Your task to perform on an android device: Go to battery settings Image 0: 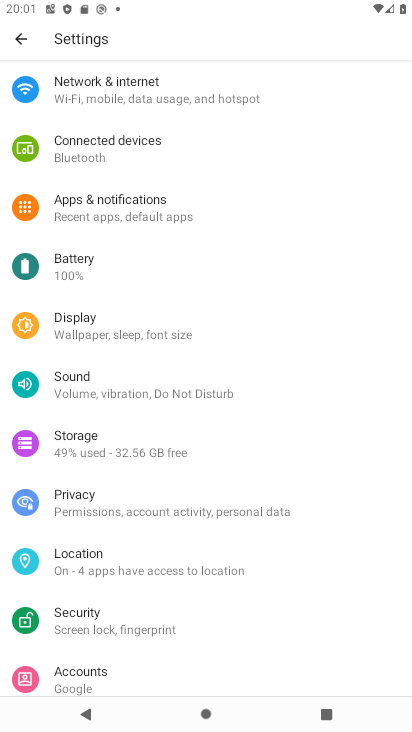
Step 0: click (65, 261)
Your task to perform on an android device: Go to battery settings Image 1: 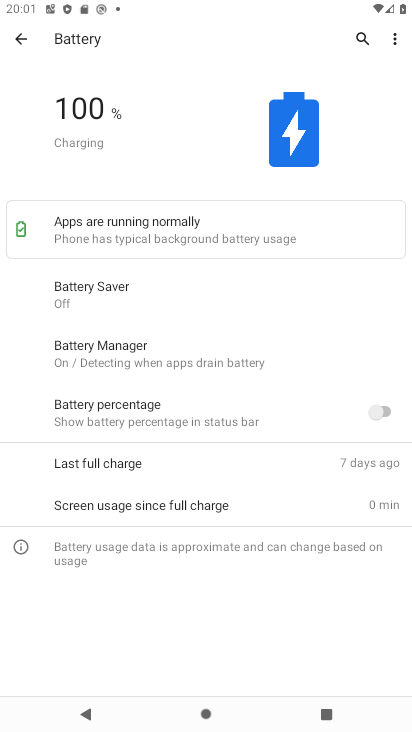
Step 1: task complete